Your task to perform on an android device: open chrome and create a bookmark for the current page Image 0: 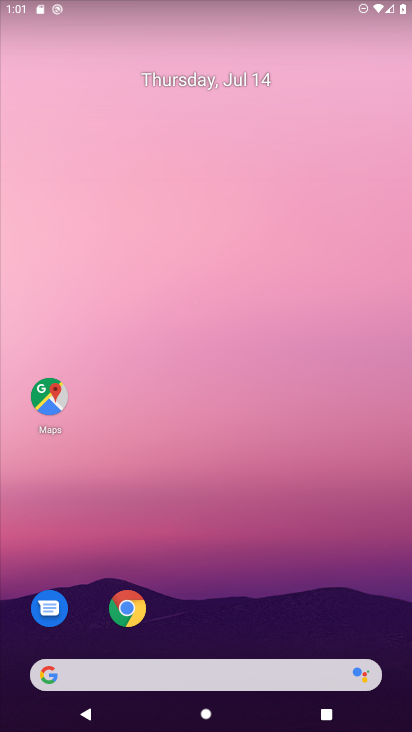
Step 0: drag from (224, 707) to (223, 184)
Your task to perform on an android device: open chrome and create a bookmark for the current page Image 1: 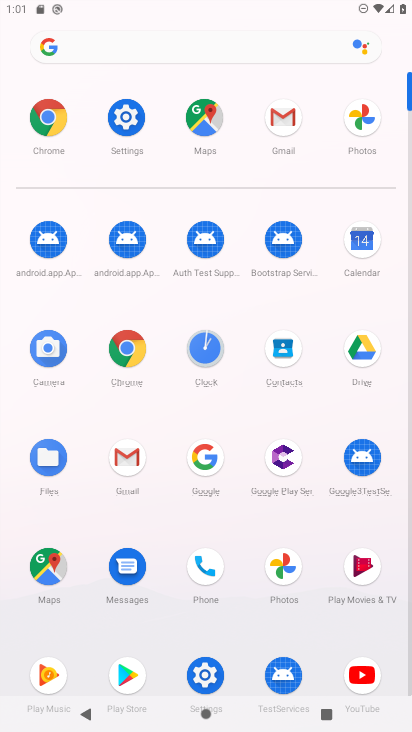
Step 1: click (128, 350)
Your task to perform on an android device: open chrome and create a bookmark for the current page Image 2: 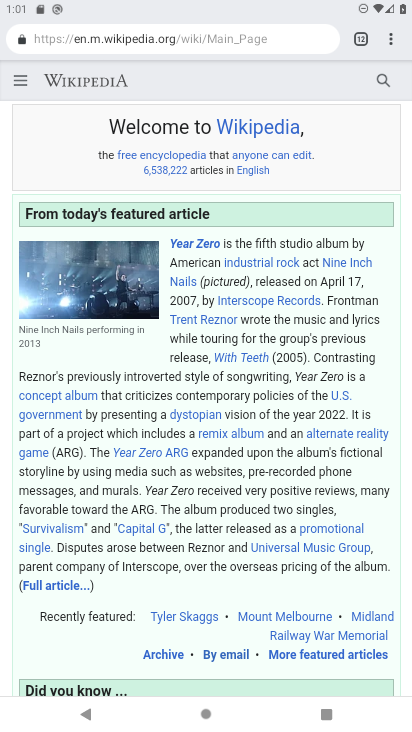
Step 2: click (392, 41)
Your task to perform on an android device: open chrome and create a bookmark for the current page Image 3: 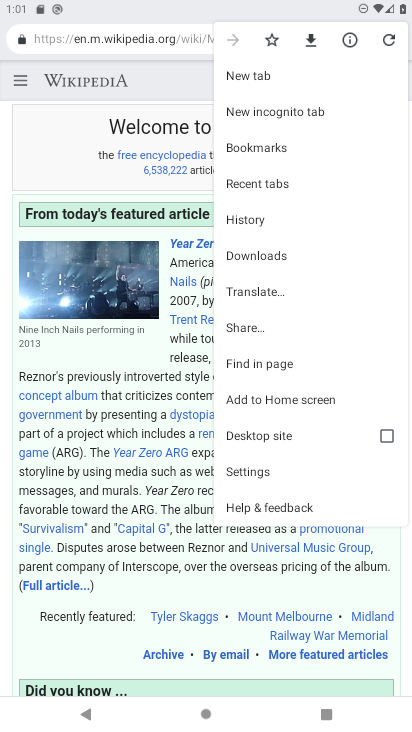
Step 3: click (267, 37)
Your task to perform on an android device: open chrome and create a bookmark for the current page Image 4: 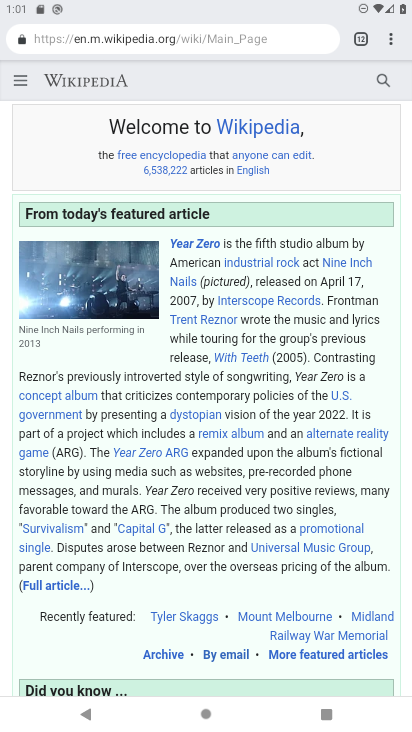
Step 4: task complete